Your task to perform on an android device: see sites visited before in the chrome app Image 0: 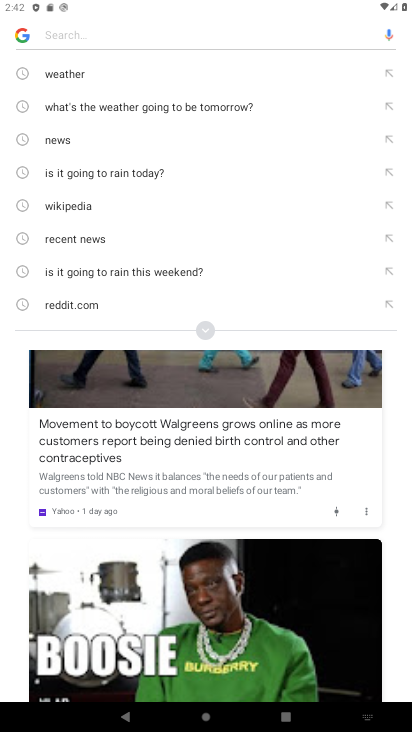
Step 0: press home button
Your task to perform on an android device: see sites visited before in the chrome app Image 1: 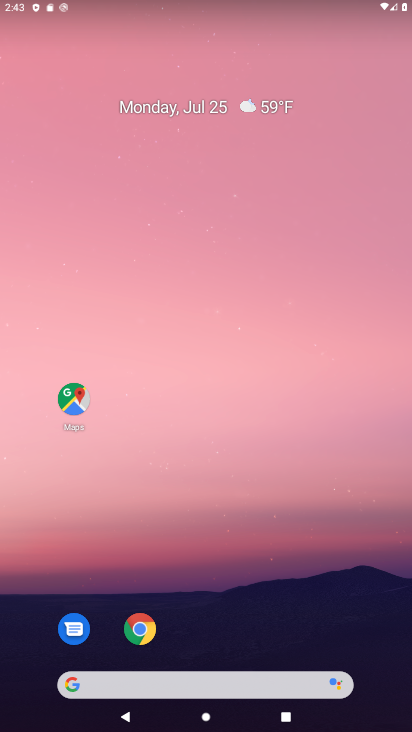
Step 1: click (140, 625)
Your task to perform on an android device: see sites visited before in the chrome app Image 2: 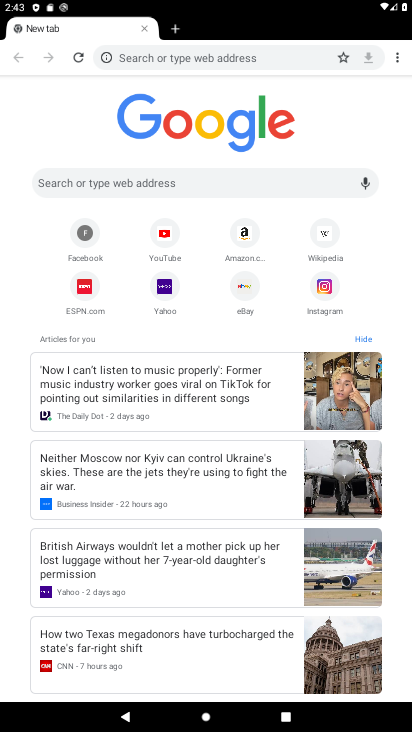
Step 2: click (402, 52)
Your task to perform on an android device: see sites visited before in the chrome app Image 3: 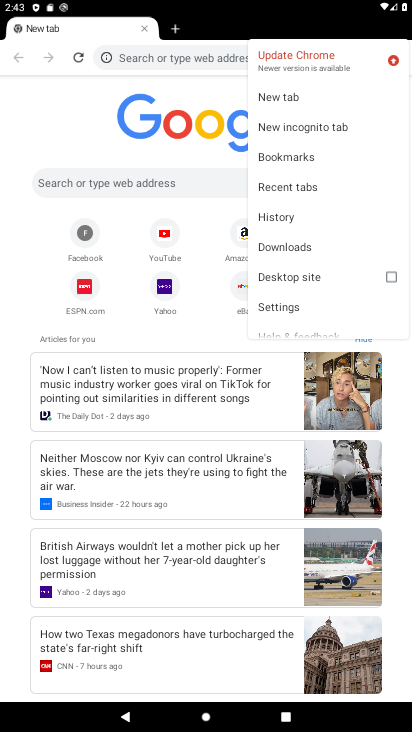
Step 3: click (288, 214)
Your task to perform on an android device: see sites visited before in the chrome app Image 4: 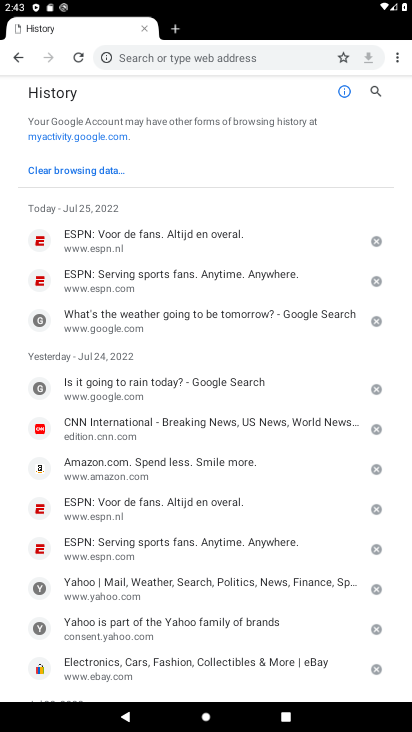
Step 4: task complete